Your task to perform on an android device: Open Google Maps and go to "Timeline" Image 0: 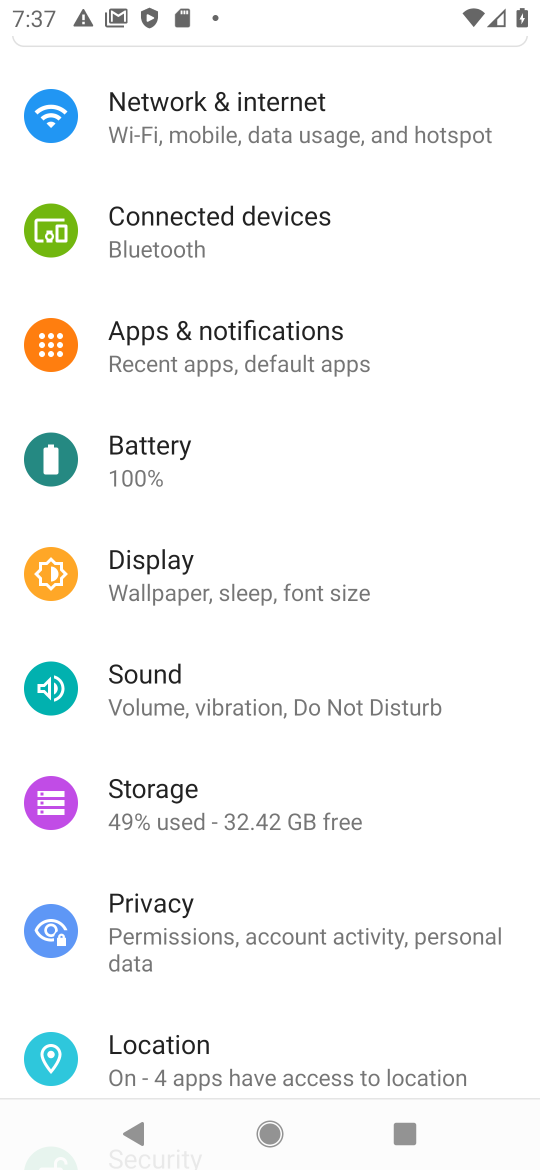
Step 0: press home button
Your task to perform on an android device: Open Google Maps and go to "Timeline" Image 1: 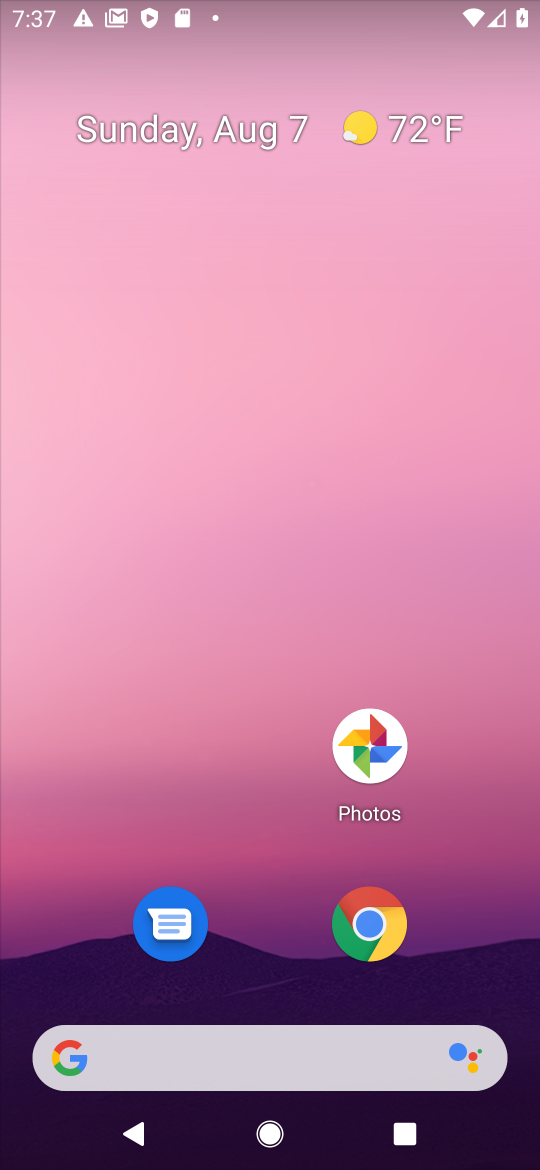
Step 1: drag from (343, 1072) to (410, 183)
Your task to perform on an android device: Open Google Maps and go to "Timeline" Image 2: 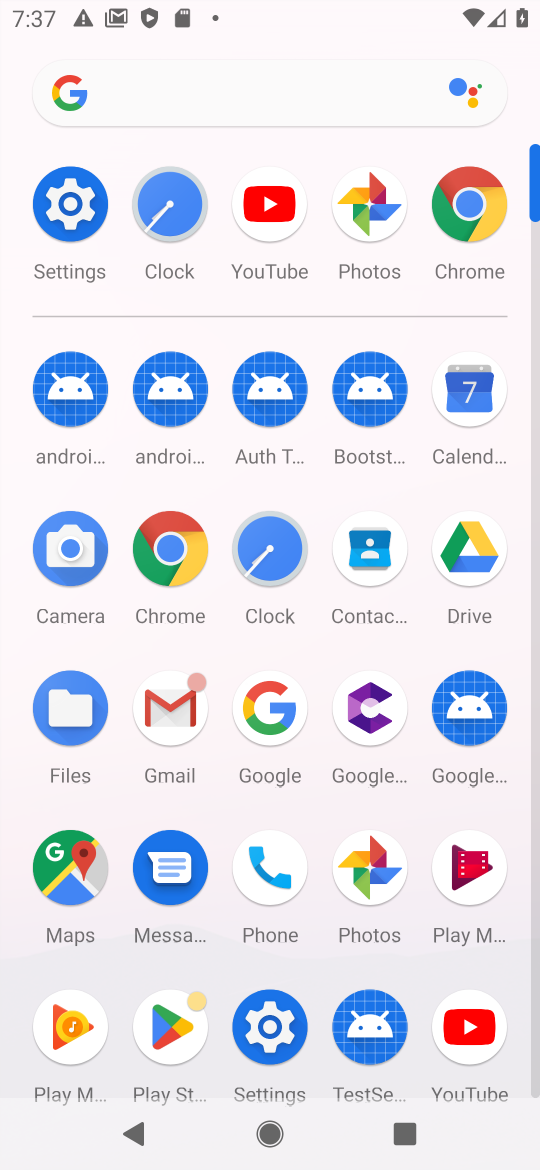
Step 2: click (56, 895)
Your task to perform on an android device: Open Google Maps and go to "Timeline" Image 3: 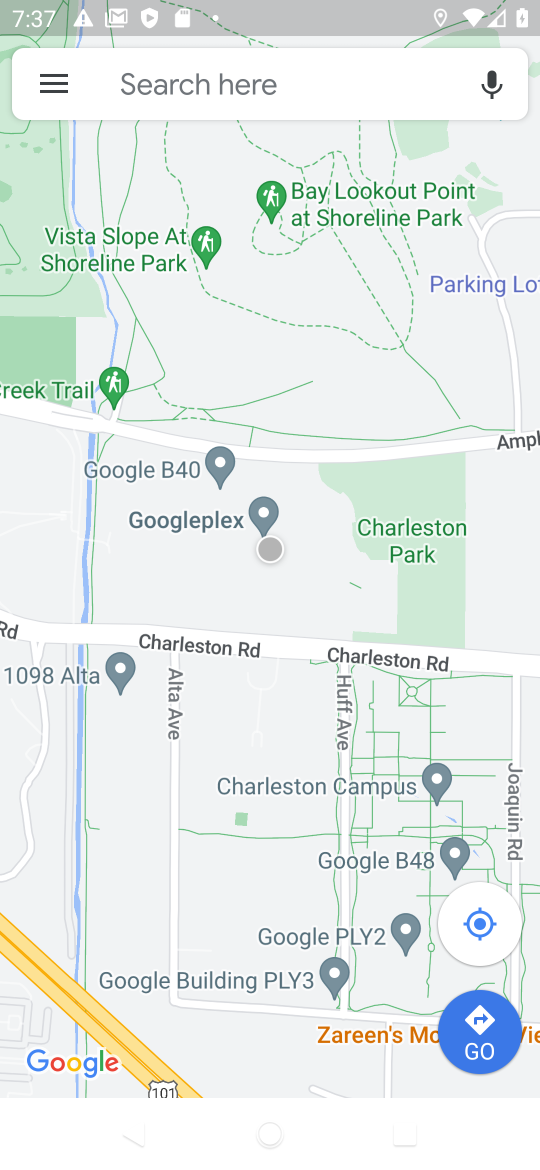
Step 3: click (52, 79)
Your task to perform on an android device: Open Google Maps and go to "Timeline" Image 4: 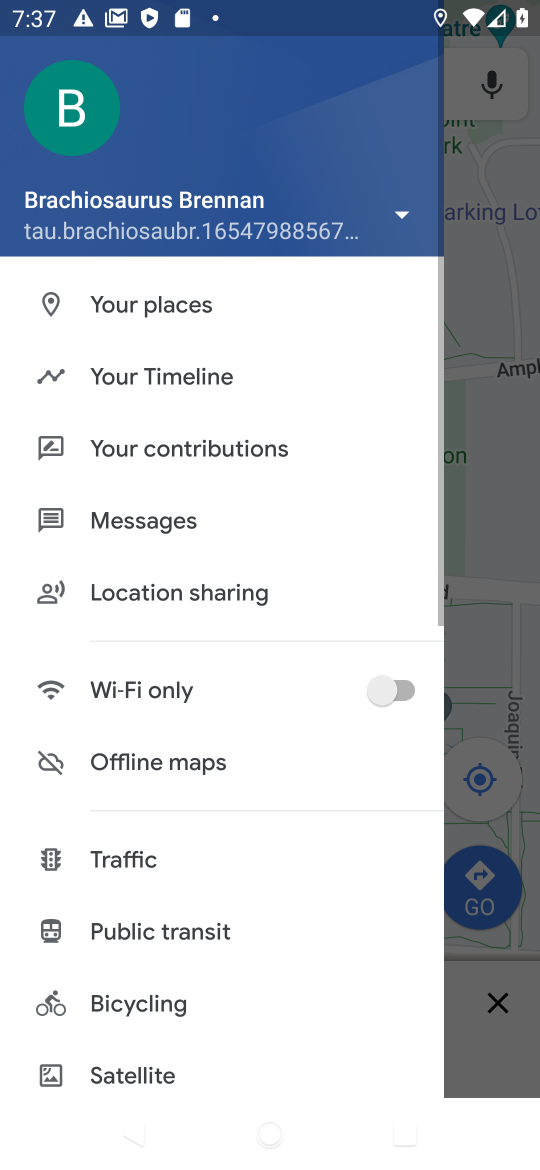
Step 4: click (136, 1082)
Your task to perform on an android device: Open Google Maps and go to "Timeline" Image 5: 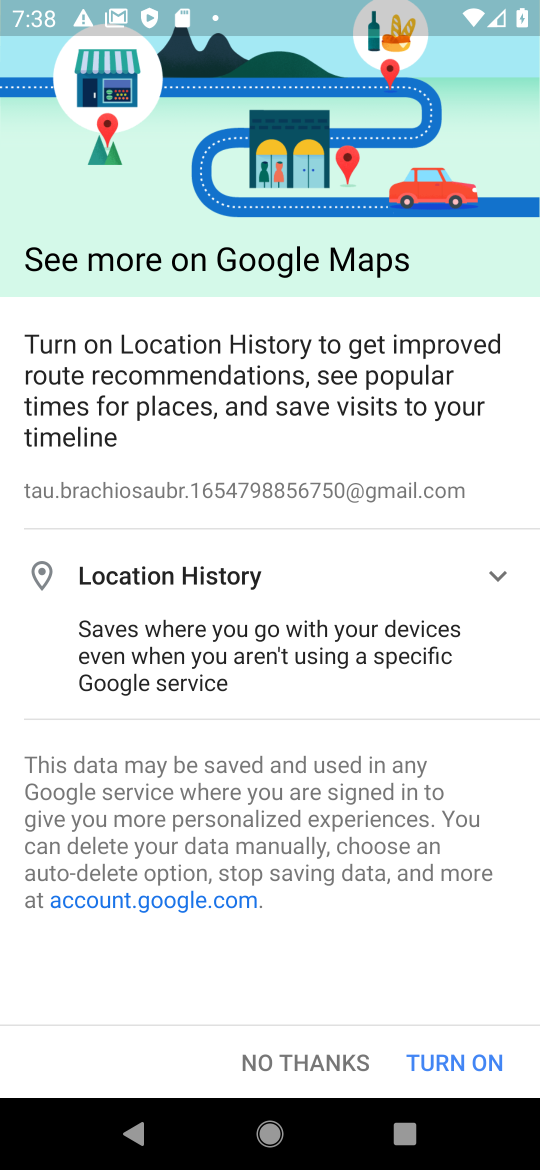
Step 5: click (252, 1059)
Your task to perform on an android device: Open Google Maps and go to "Timeline" Image 6: 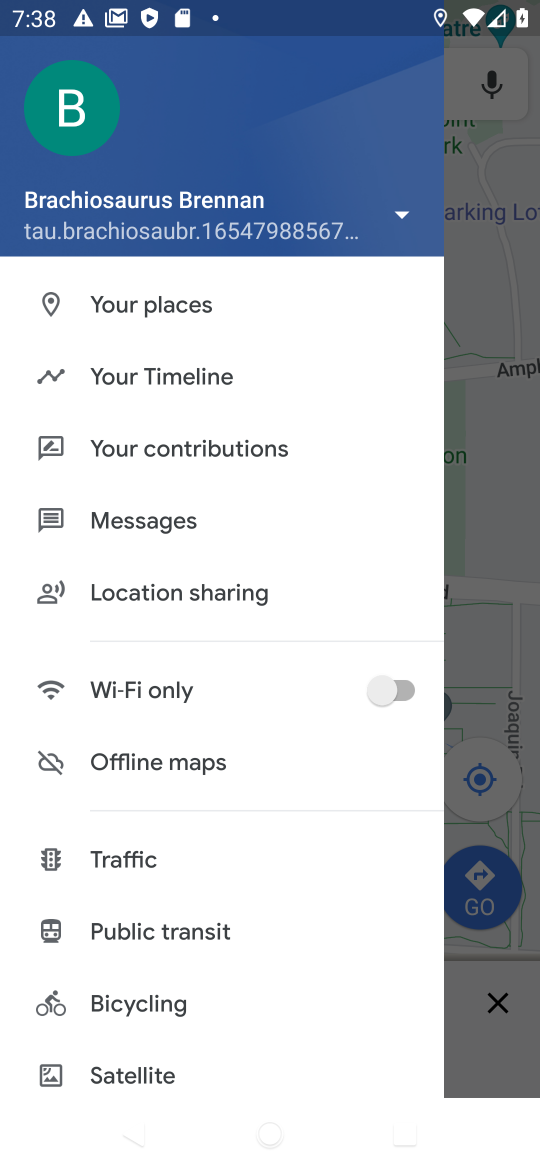
Step 6: click (221, 376)
Your task to perform on an android device: Open Google Maps and go to "Timeline" Image 7: 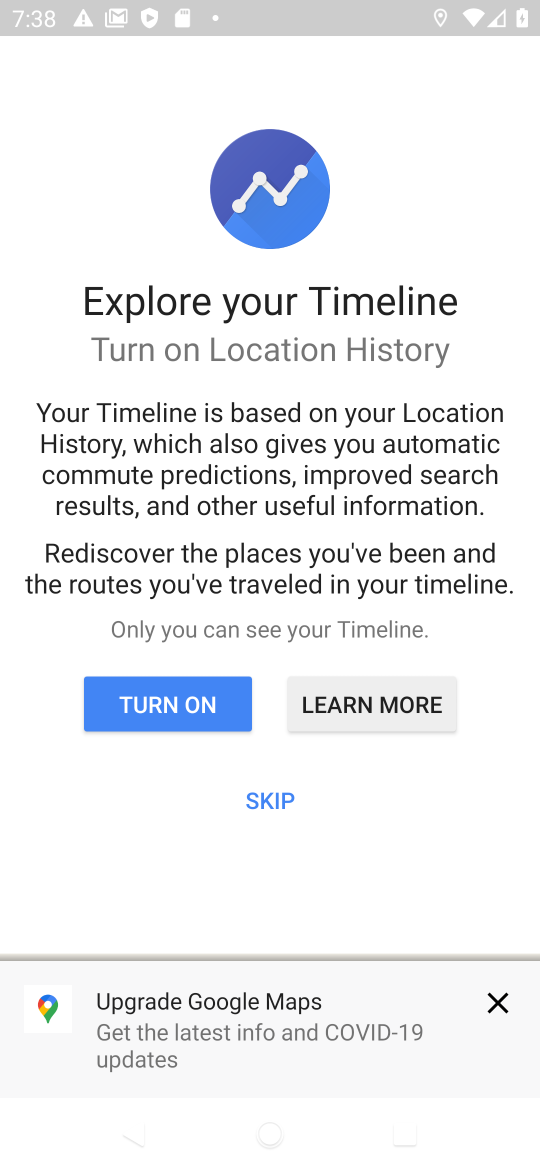
Step 7: click (272, 797)
Your task to perform on an android device: Open Google Maps and go to "Timeline" Image 8: 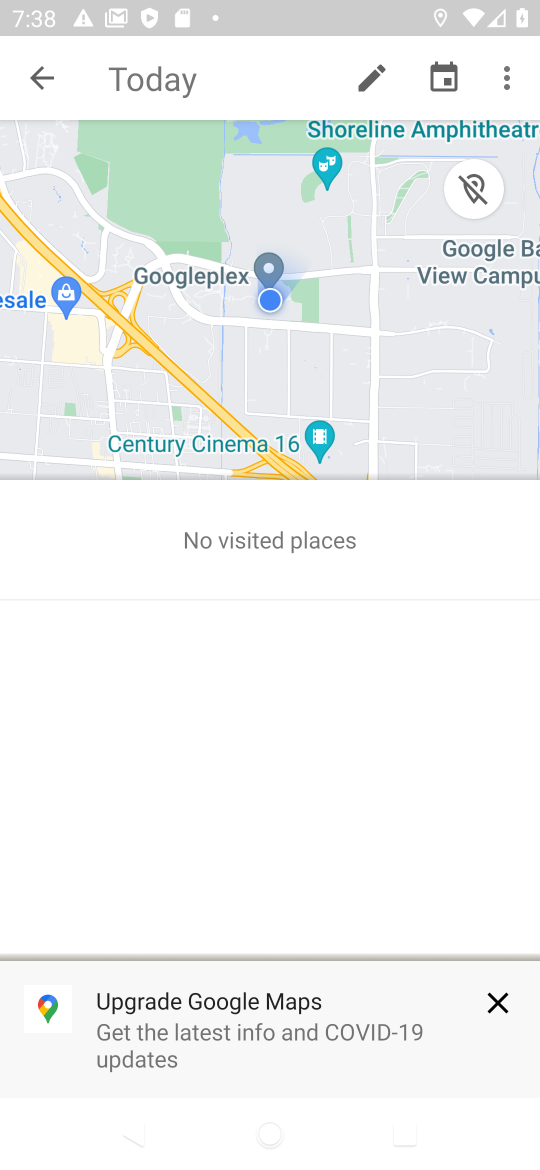
Step 8: click (510, 1004)
Your task to perform on an android device: Open Google Maps and go to "Timeline" Image 9: 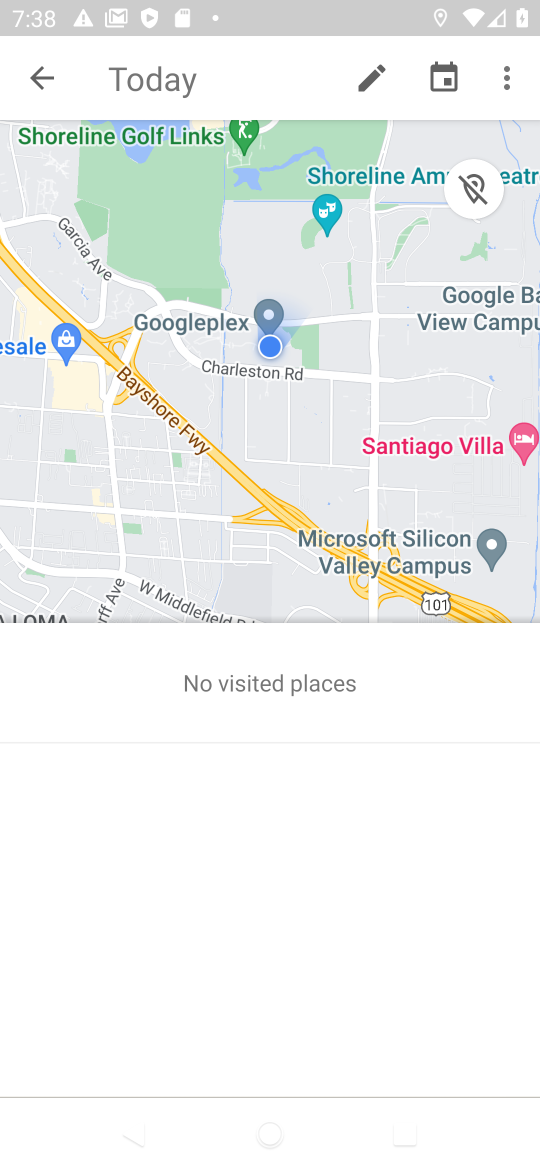
Step 9: task complete